Your task to perform on an android device: Do I have any events today? Image 0: 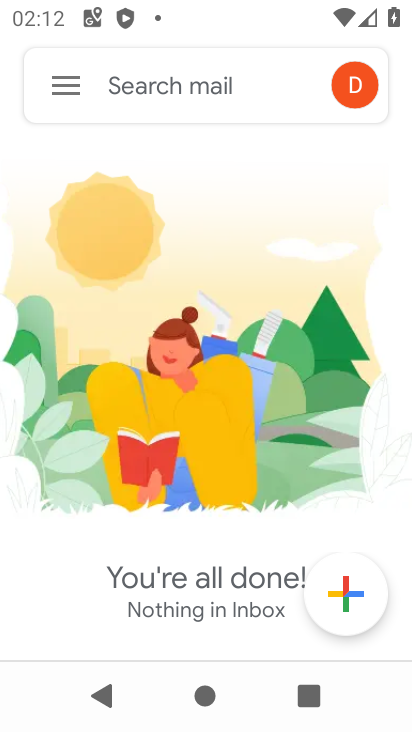
Step 0: press home button
Your task to perform on an android device: Do I have any events today? Image 1: 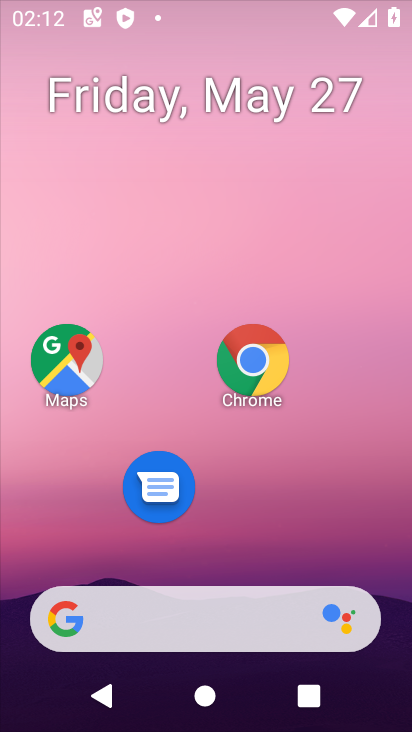
Step 1: drag from (282, 448) to (279, 22)
Your task to perform on an android device: Do I have any events today? Image 2: 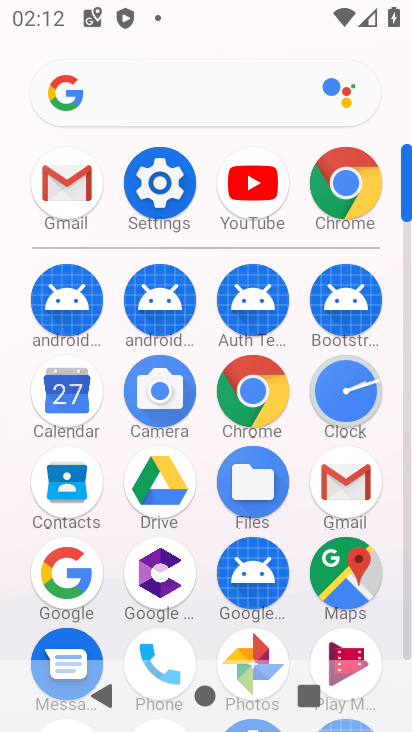
Step 2: click (64, 402)
Your task to perform on an android device: Do I have any events today? Image 3: 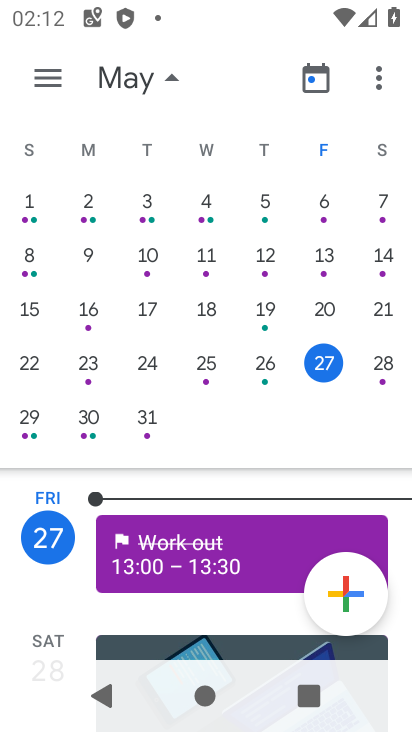
Step 3: click (326, 351)
Your task to perform on an android device: Do I have any events today? Image 4: 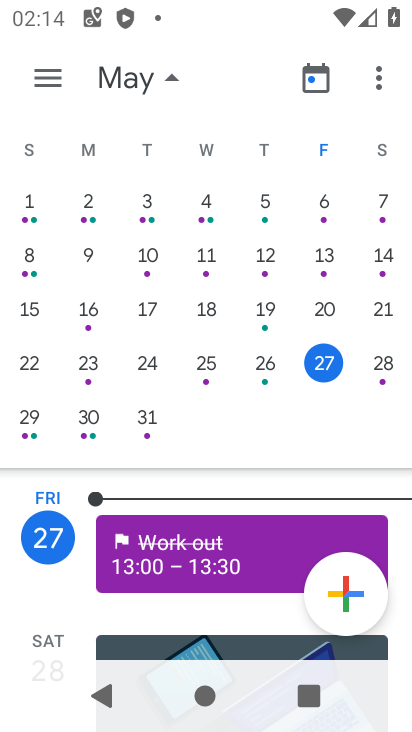
Step 4: task complete